Your task to perform on an android device: change notification settings in the gmail app Image 0: 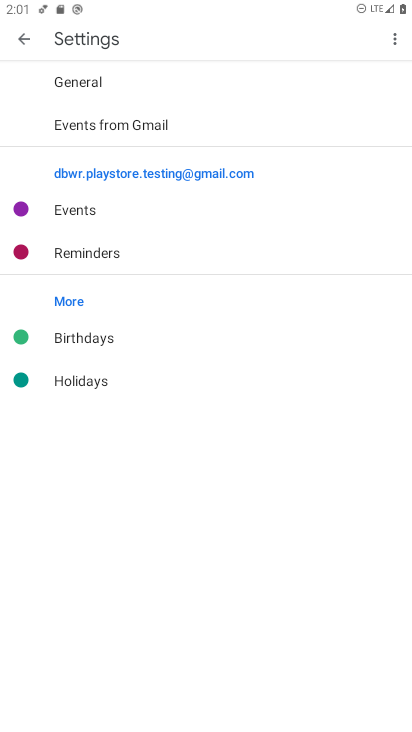
Step 0: press home button
Your task to perform on an android device: change notification settings in the gmail app Image 1: 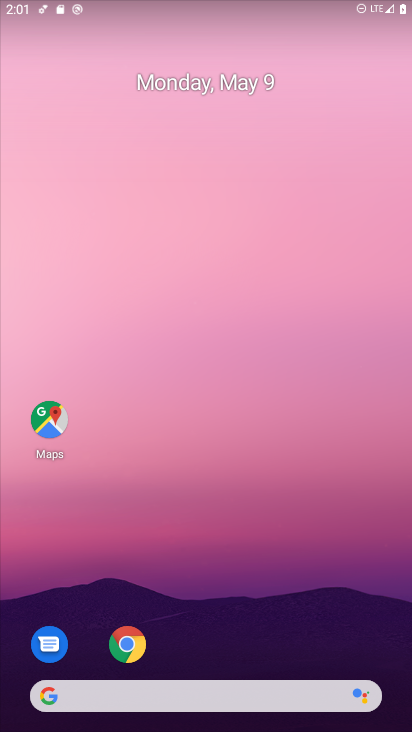
Step 1: drag from (214, 557) to (273, 72)
Your task to perform on an android device: change notification settings in the gmail app Image 2: 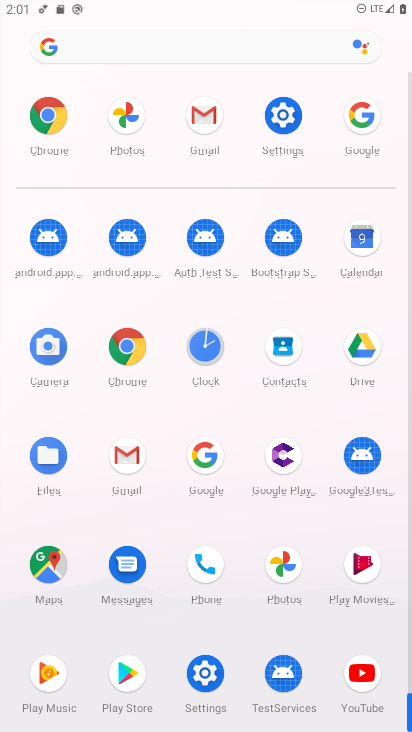
Step 2: click (199, 137)
Your task to perform on an android device: change notification settings in the gmail app Image 3: 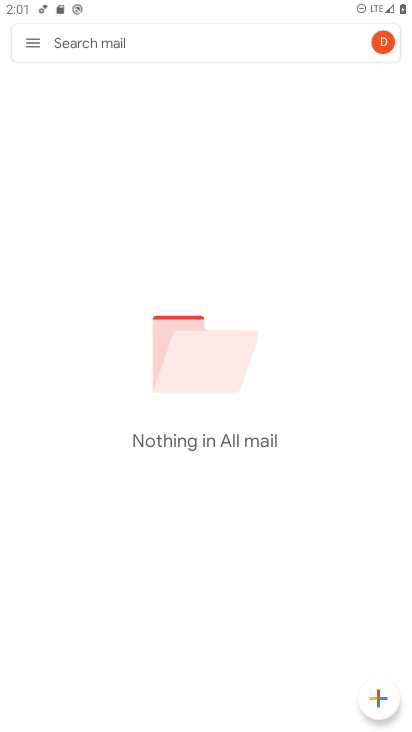
Step 3: click (37, 48)
Your task to perform on an android device: change notification settings in the gmail app Image 4: 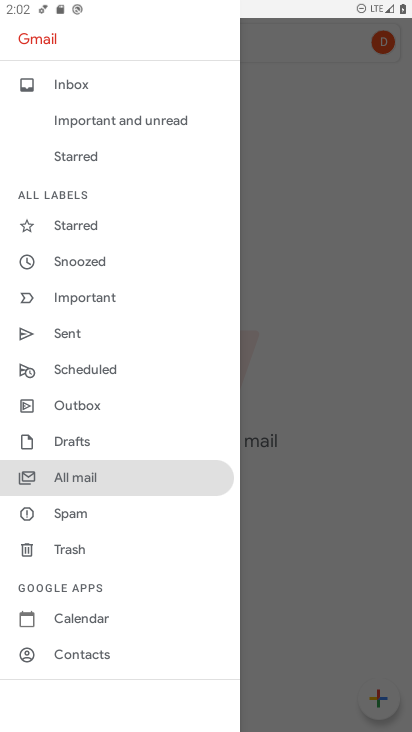
Step 4: drag from (154, 630) to (132, 183)
Your task to perform on an android device: change notification settings in the gmail app Image 5: 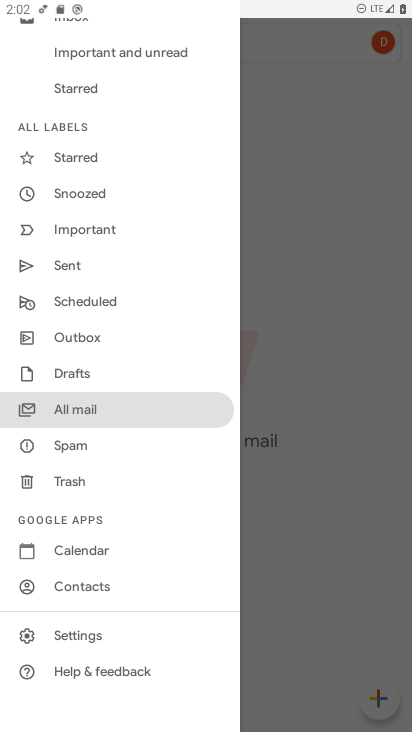
Step 5: click (78, 640)
Your task to perform on an android device: change notification settings in the gmail app Image 6: 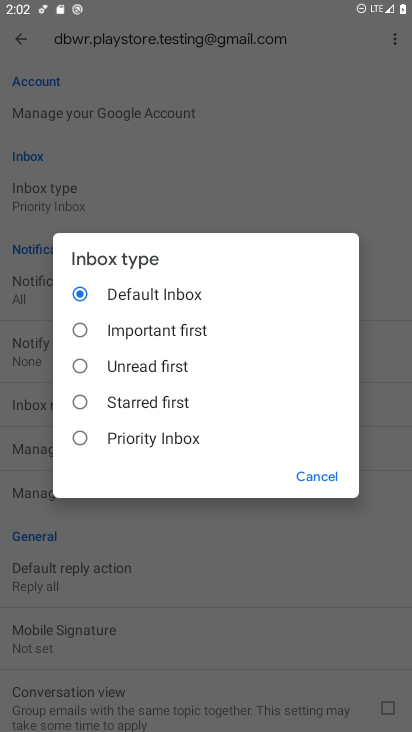
Step 6: click (319, 482)
Your task to perform on an android device: change notification settings in the gmail app Image 7: 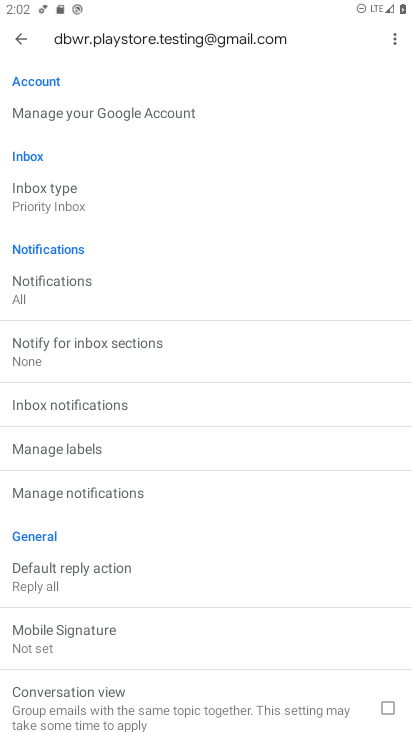
Step 7: click (53, 290)
Your task to perform on an android device: change notification settings in the gmail app Image 8: 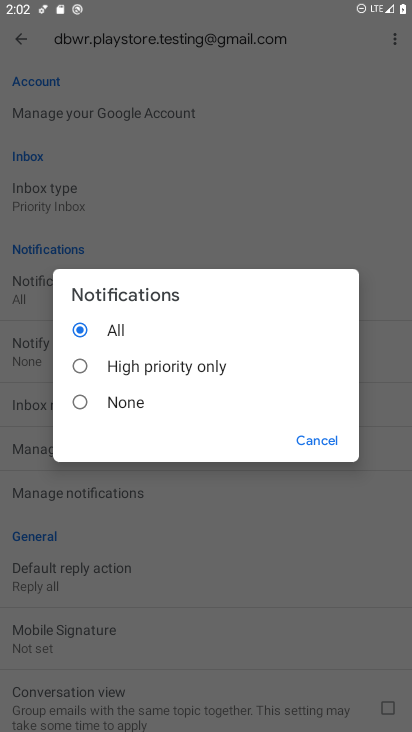
Step 8: click (71, 408)
Your task to perform on an android device: change notification settings in the gmail app Image 9: 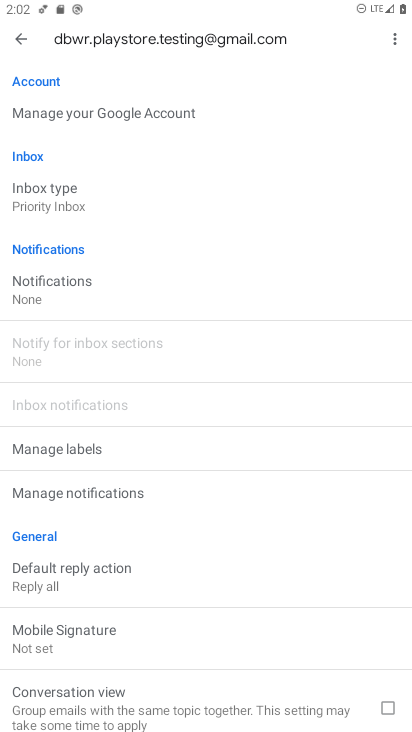
Step 9: task complete